Your task to perform on an android device: Open calendar and show me the second week of next month Image 0: 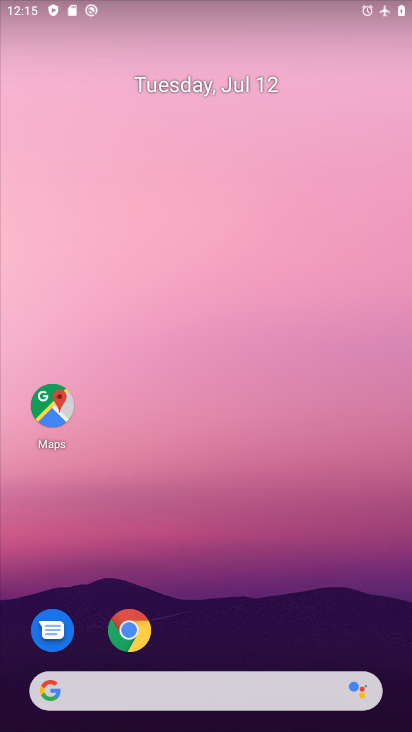
Step 0: drag from (356, 618) to (296, 244)
Your task to perform on an android device: Open calendar and show me the second week of next month Image 1: 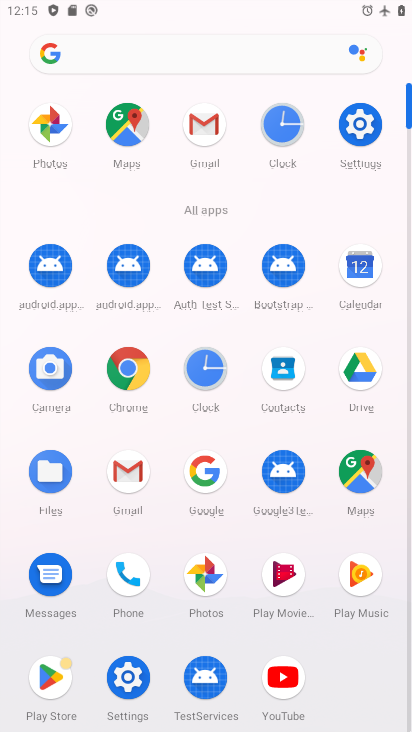
Step 1: click (360, 266)
Your task to perform on an android device: Open calendar and show me the second week of next month Image 2: 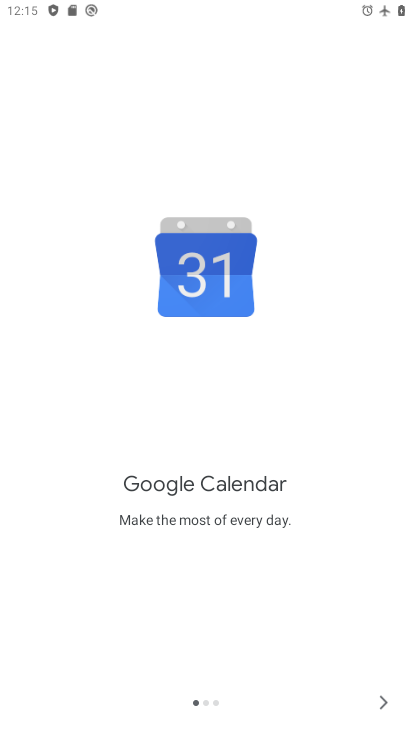
Step 2: click (384, 698)
Your task to perform on an android device: Open calendar and show me the second week of next month Image 3: 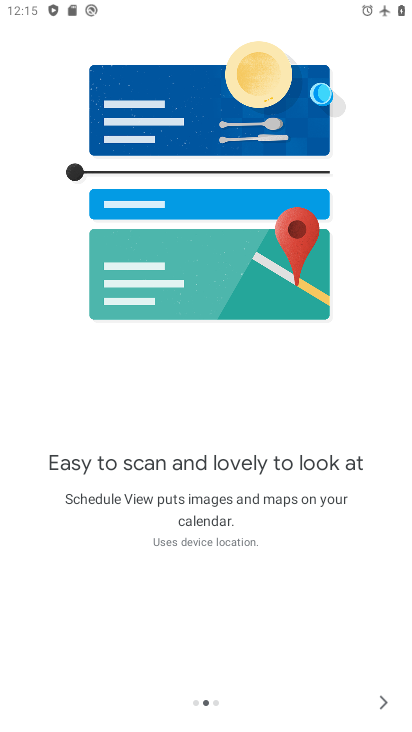
Step 3: click (379, 700)
Your task to perform on an android device: Open calendar and show me the second week of next month Image 4: 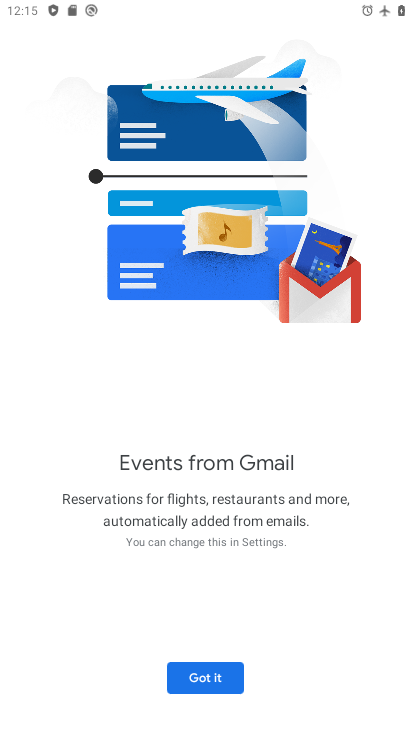
Step 4: click (209, 678)
Your task to perform on an android device: Open calendar and show me the second week of next month Image 5: 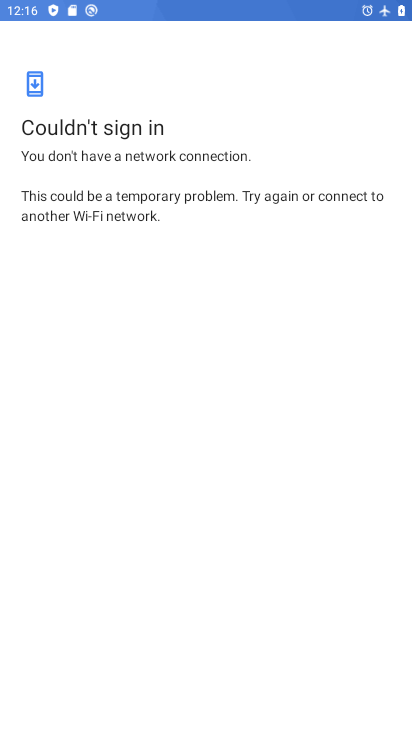
Step 5: task complete